Your task to perform on an android device: see creations saved in the google photos Image 0: 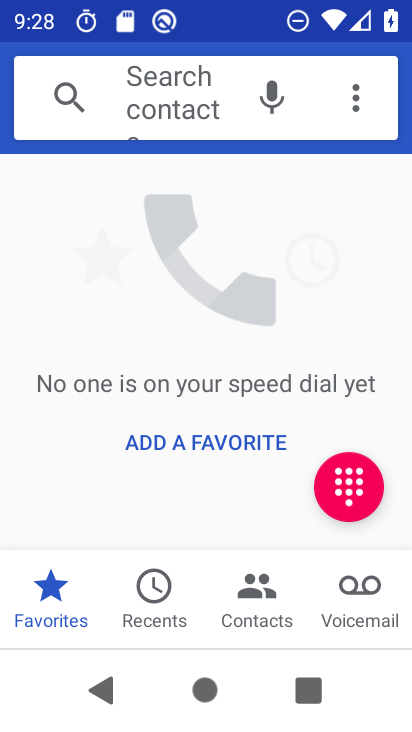
Step 0: press home button
Your task to perform on an android device: see creations saved in the google photos Image 1: 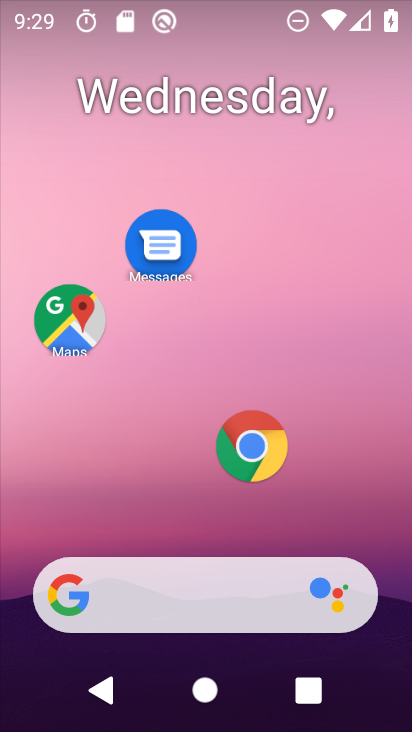
Step 1: drag from (200, 529) to (271, 20)
Your task to perform on an android device: see creations saved in the google photos Image 2: 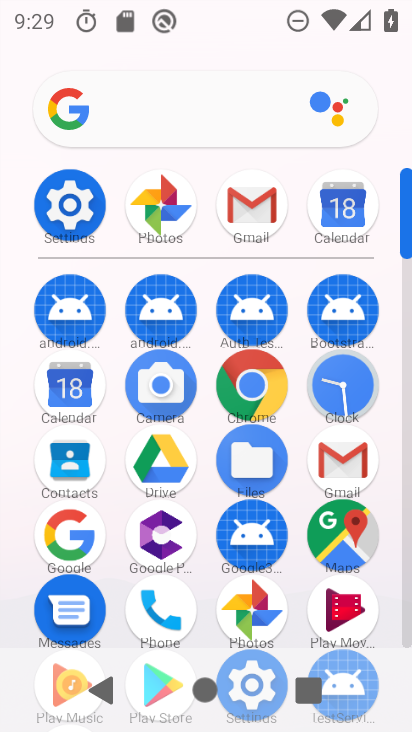
Step 2: click (152, 192)
Your task to perform on an android device: see creations saved in the google photos Image 3: 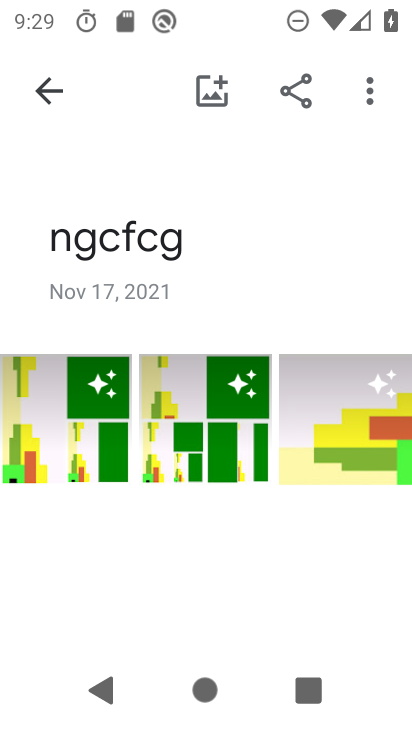
Step 3: click (52, 96)
Your task to perform on an android device: see creations saved in the google photos Image 4: 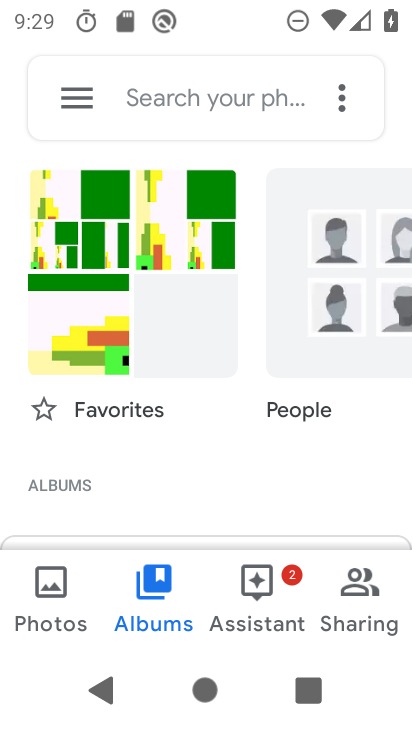
Step 4: click (189, 99)
Your task to perform on an android device: see creations saved in the google photos Image 5: 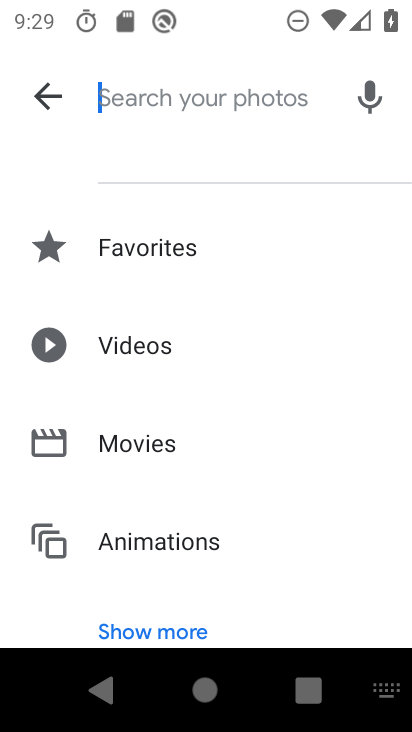
Step 5: click (166, 622)
Your task to perform on an android device: see creations saved in the google photos Image 6: 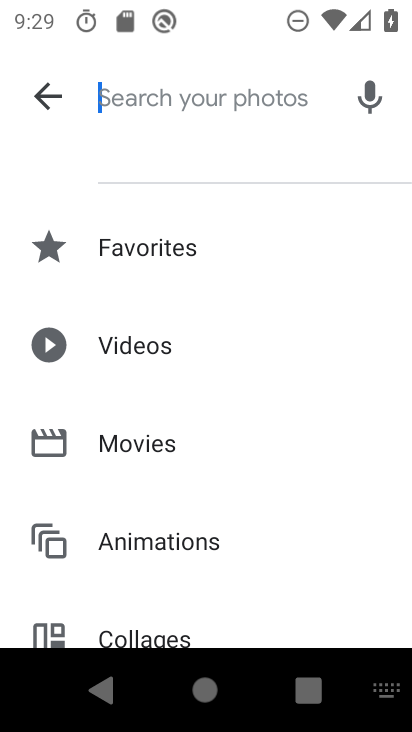
Step 6: drag from (179, 565) to (221, 68)
Your task to perform on an android device: see creations saved in the google photos Image 7: 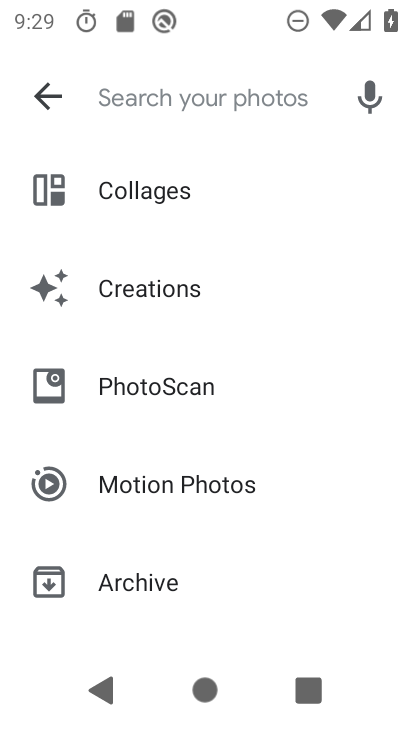
Step 7: click (114, 280)
Your task to perform on an android device: see creations saved in the google photos Image 8: 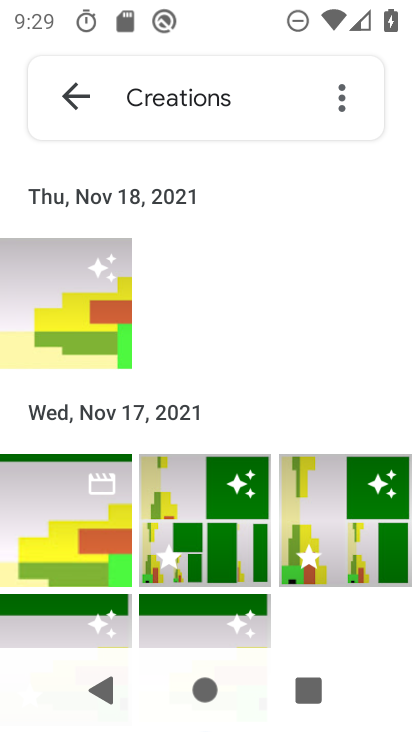
Step 8: task complete